Your task to perform on an android device: Open calendar and show me the third week of next month Image 0: 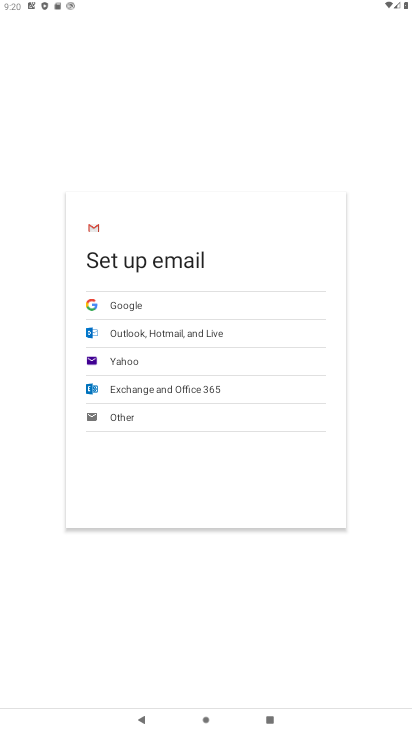
Step 0: press home button
Your task to perform on an android device: Open calendar and show me the third week of next month Image 1: 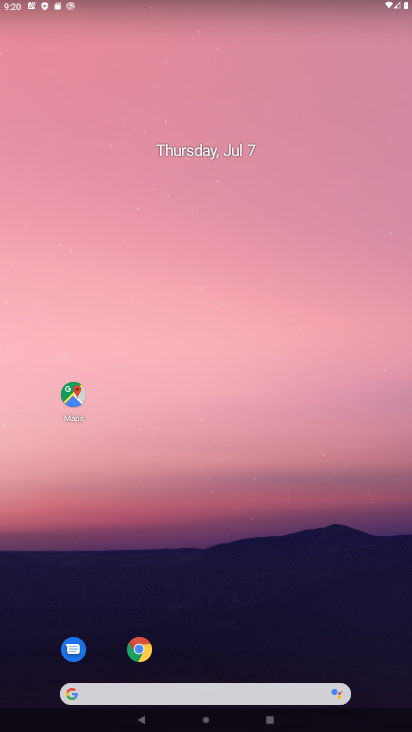
Step 1: drag from (226, 704) to (199, 76)
Your task to perform on an android device: Open calendar and show me the third week of next month Image 2: 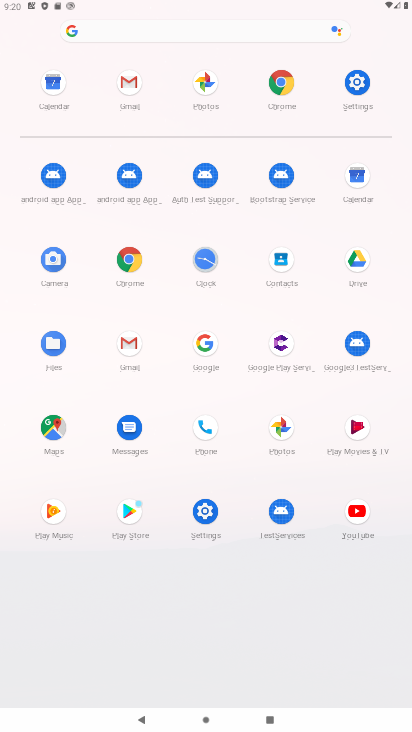
Step 2: click (361, 178)
Your task to perform on an android device: Open calendar and show me the third week of next month Image 3: 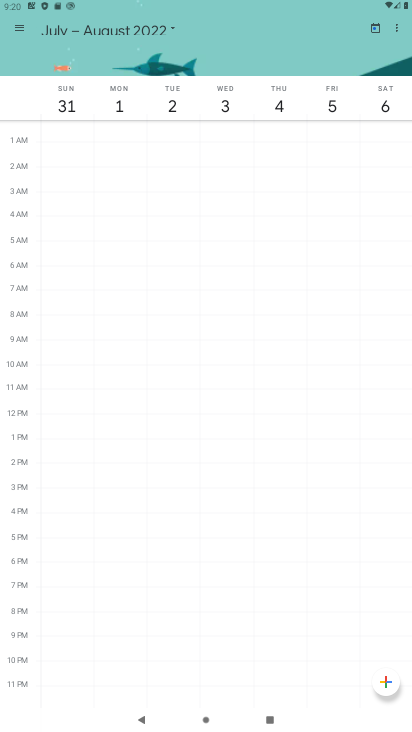
Step 3: click (173, 27)
Your task to perform on an android device: Open calendar and show me the third week of next month Image 4: 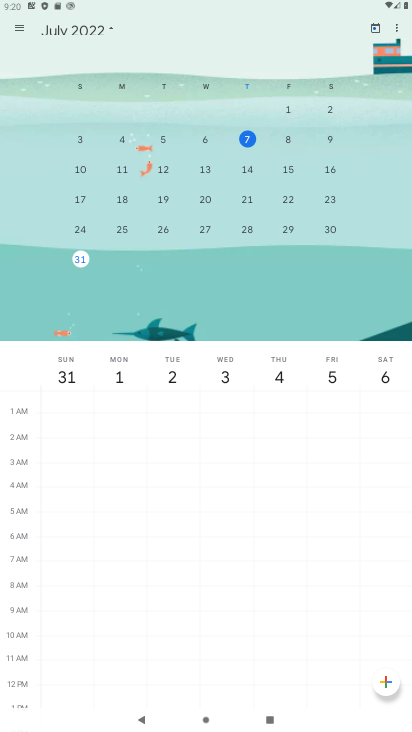
Step 4: drag from (333, 174) to (80, 173)
Your task to perform on an android device: Open calendar and show me the third week of next month Image 5: 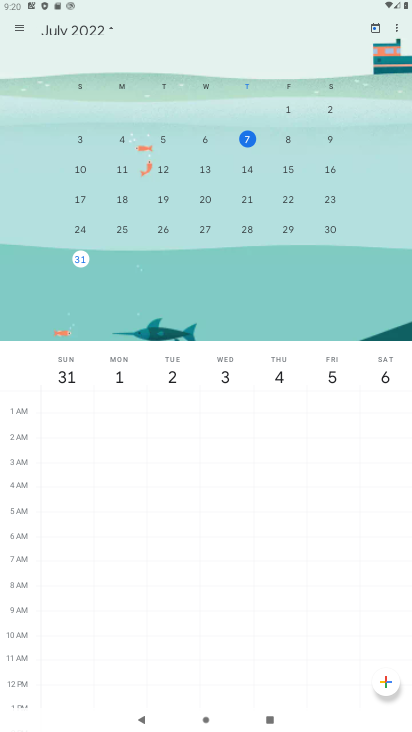
Step 5: drag from (322, 182) to (131, 178)
Your task to perform on an android device: Open calendar and show me the third week of next month Image 6: 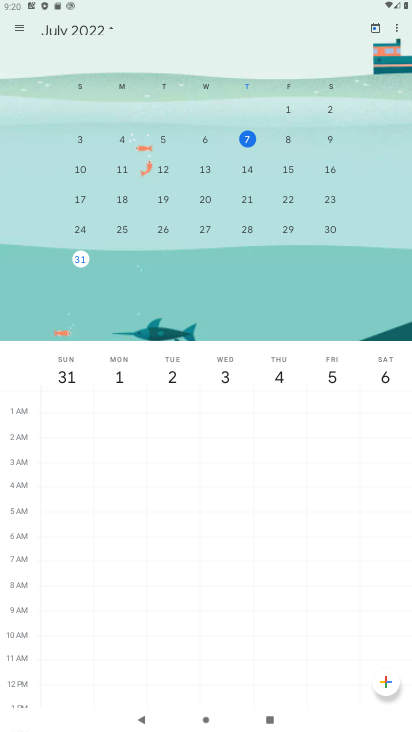
Step 6: drag from (314, 182) to (29, 180)
Your task to perform on an android device: Open calendar and show me the third week of next month Image 7: 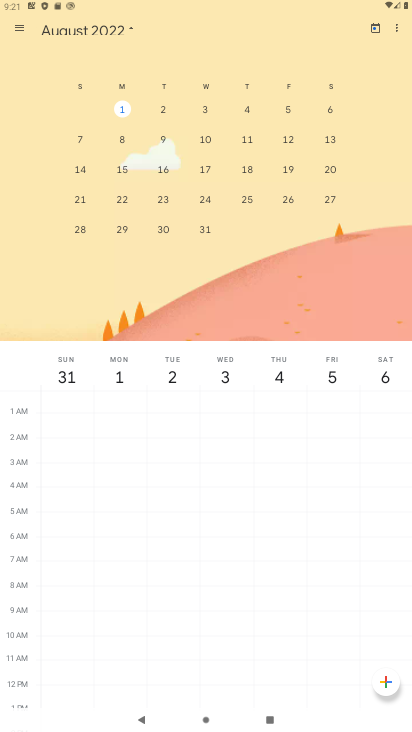
Step 7: click (118, 165)
Your task to perform on an android device: Open calendar and show me the third week of next month Image 8: 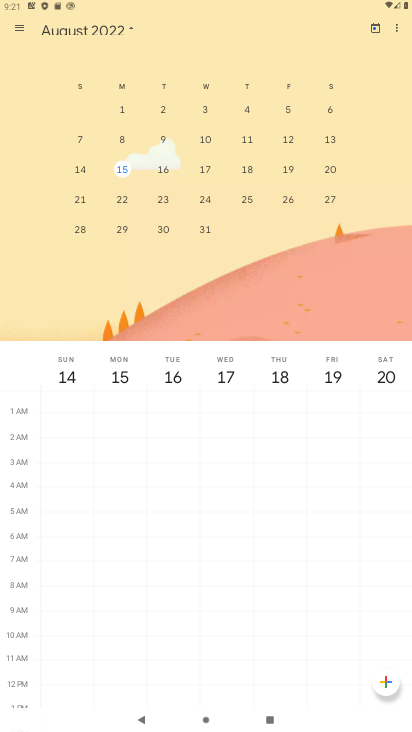
Step 8: click (25, 24)
Your task to perform on an android device: Open calendar and show me the third week of next month Image 9: 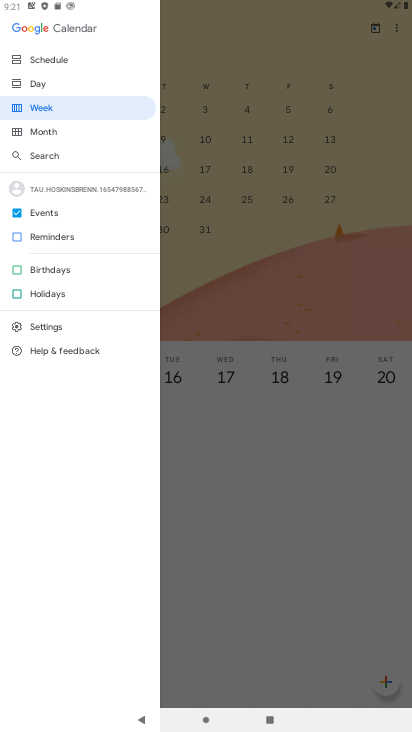
Step 9: click (50, 104)
Your task to perform on an android device: Open calendar and show me the third week of next month Image 10: 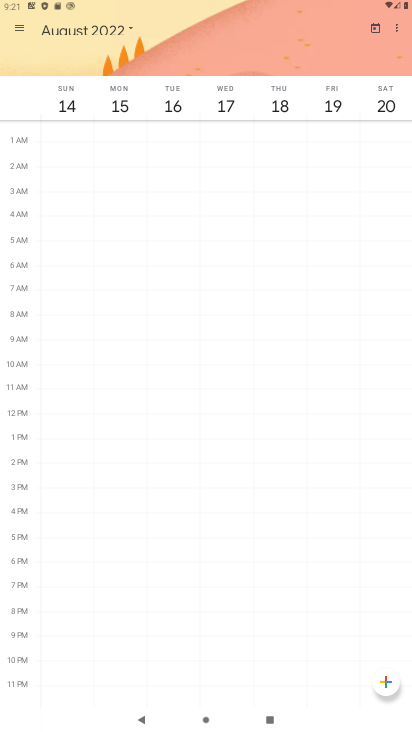
Step 10: task complete